Your task to perform on an android device: Go to Reddit.com Image 0: 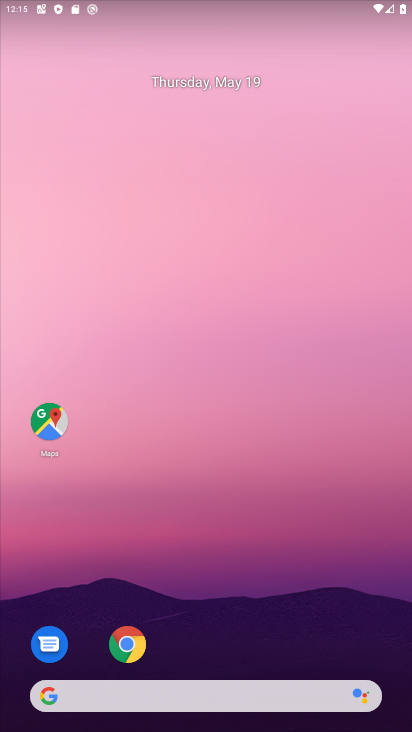
Step 0: drag from (304, 589) to (312, 232)
Your task to perform on an android device: Go to Reddit.com Image 1: 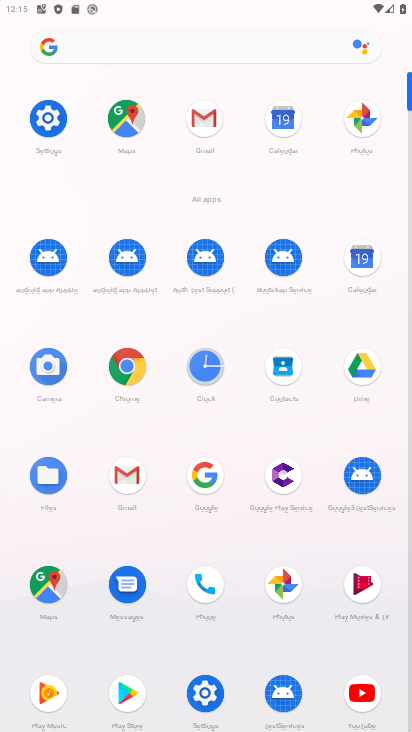
Step 1: click (119, 368)
Your task to perform on an android device: Go to Reddit.com Image 2: 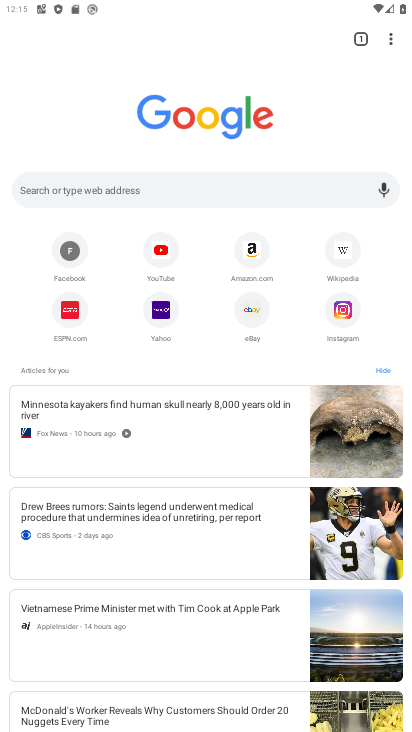
Step 2: click (254, 188)
Your task to perform on an android device: Go to Reddit.com Image 3: 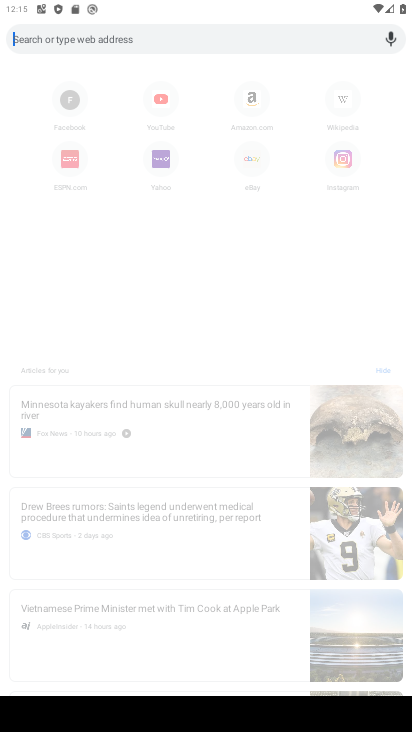
Step 3: type "reddit.com"
Your task to perform on an android device: Go to Reddit.com Image 4: 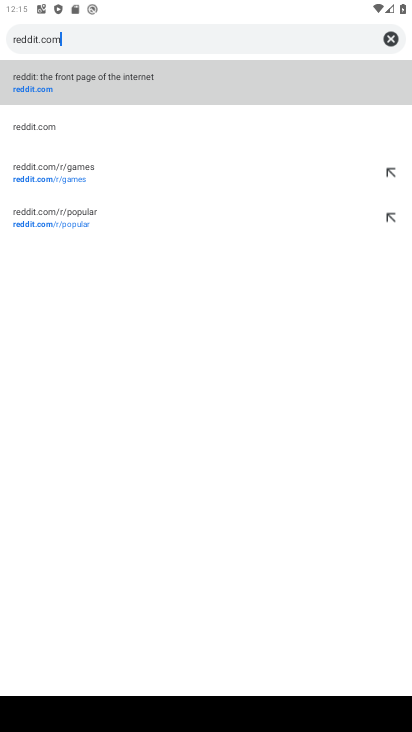
Step 4: click (133, 84)
Your task to perform on an android device: Go to Reddit.com Image 5: 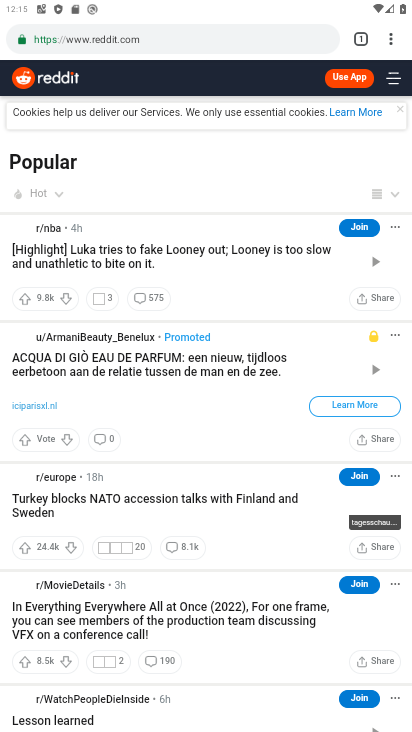
Step 5: task complete